Your task to perform on an android device: See recent photos Image 0: 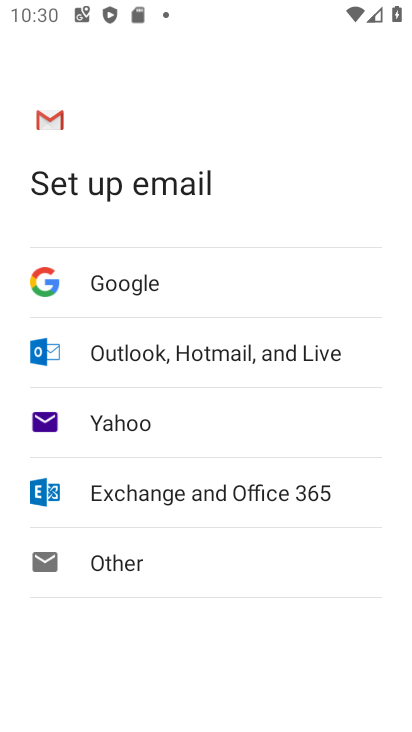
Step 0: press back button
Your task to perform on an android device: See recent photos Image 1: 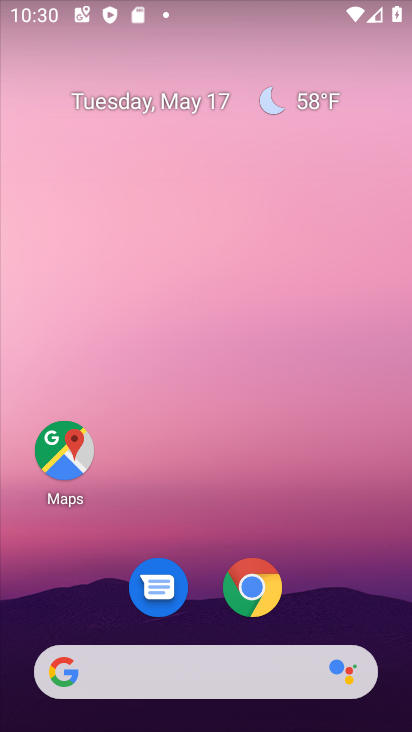
Step 1: drag from (322, 600) to (263, 31)
Your task to perform on an android device: See recent photos Image 2: 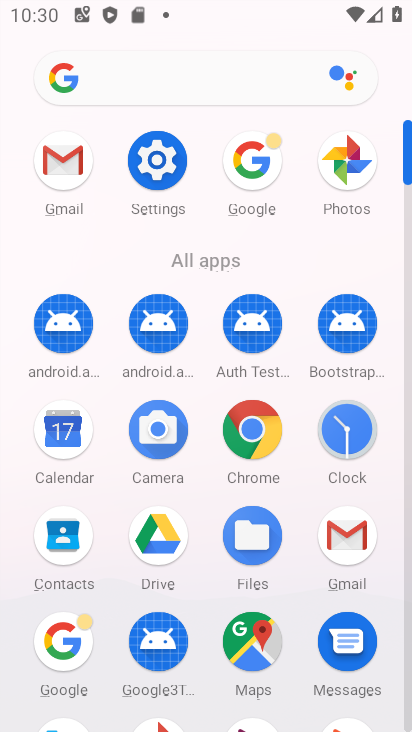
Step 2: click (349, 160)
Your task to perform on an android device: See recent photos Image 3: 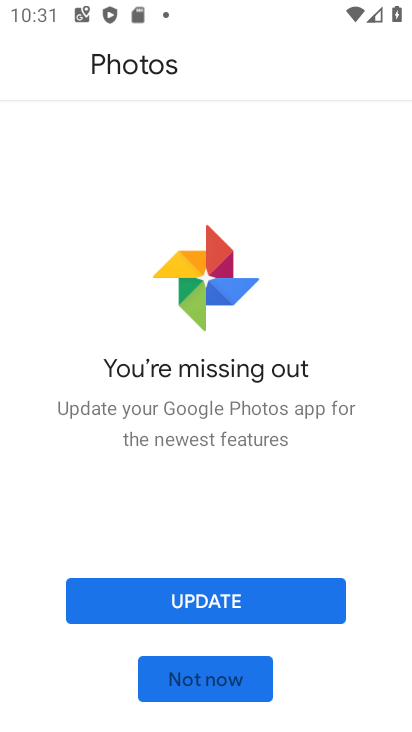
Step 3: click (202, 600)
Your task to perform on an android device: See recent photos Image 4: 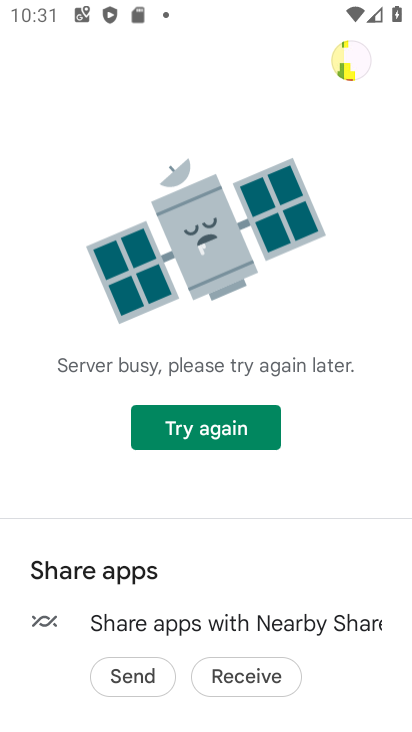
Step 4: click (195, 435)
Your task to perform on an android device: See recent photos Image 5: 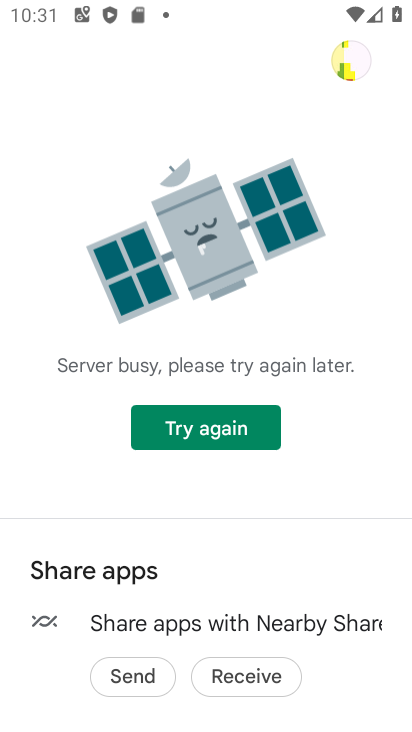
Step 5: click (185, 437)
Your task to perform on an android device: See recent photos Image 6: 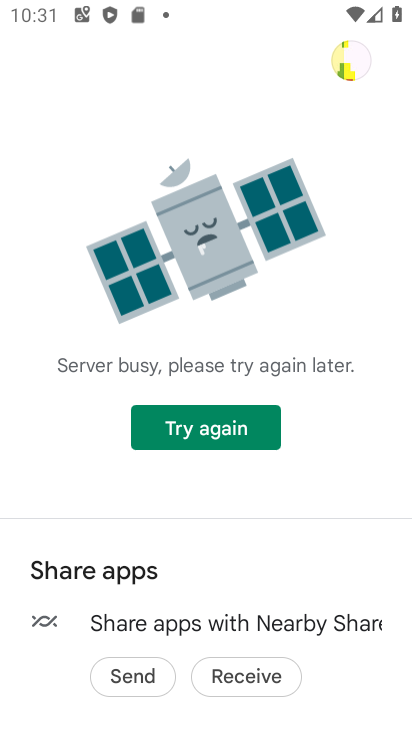
Step 6: click (185, 437)
Your task to perform on an android device: See recent photos Image 7: 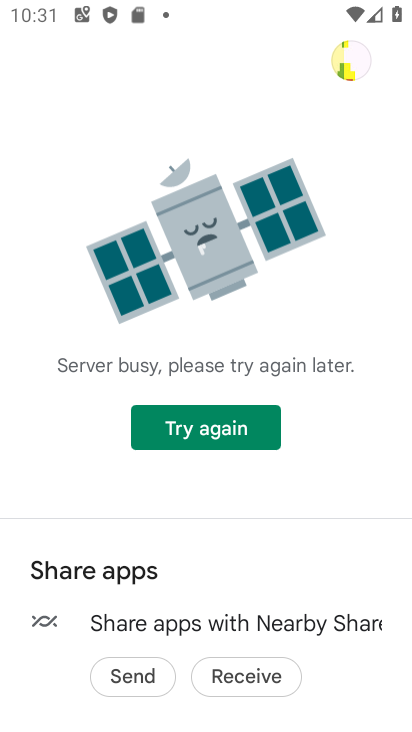
Step 7: click (185, 437)
Your task to perform on an android device: See recent photos Image 8: 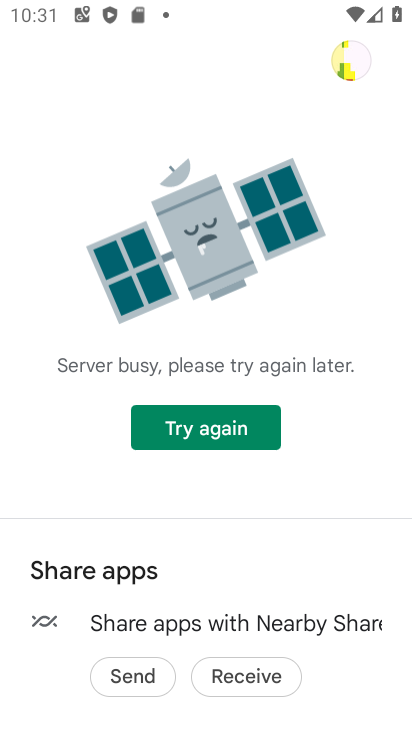
Step 8: click (217, 431)
Your task to perform on an android device: See recent photos Image 9: 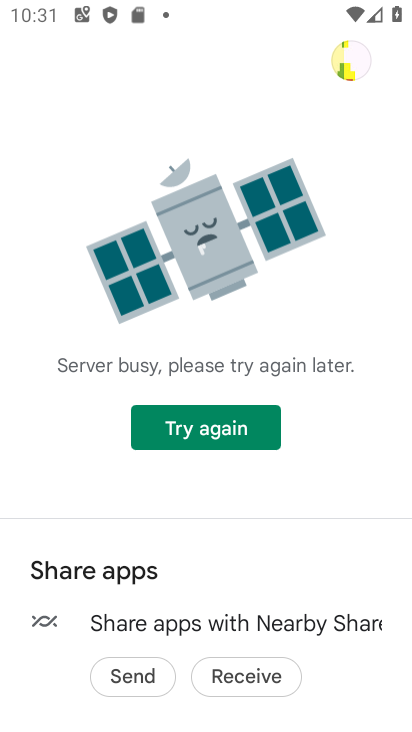
Step 9: click (217, 431)
Your task to perform on an android device: See recent photos Image 10: 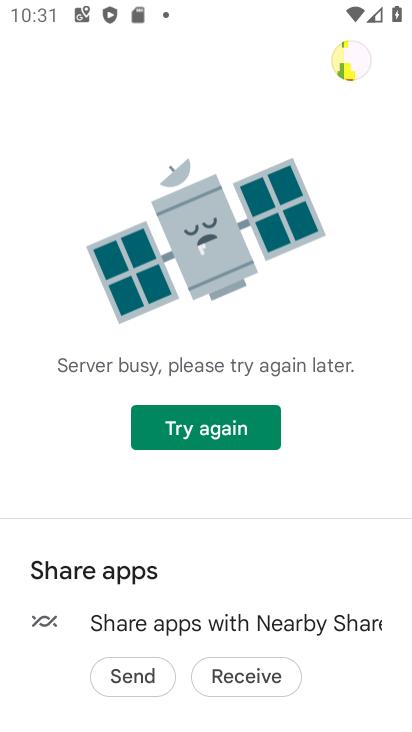
Step 10: task complete